Your task to perform on an android device: change text size in settings app Image 0: 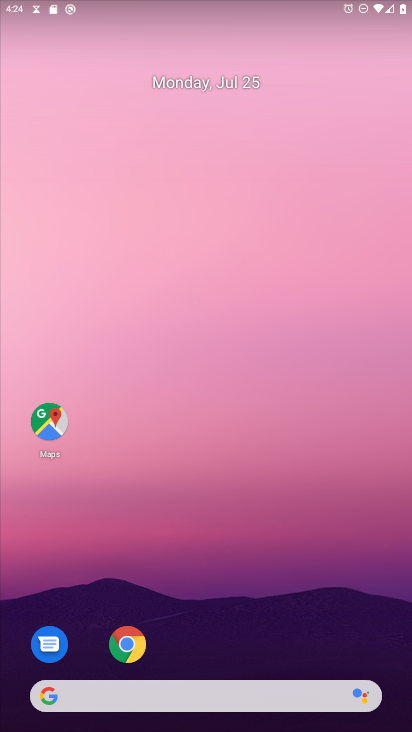
Step 0: press home button
Your task to perform on an android device: change text size in settings app Image 1: 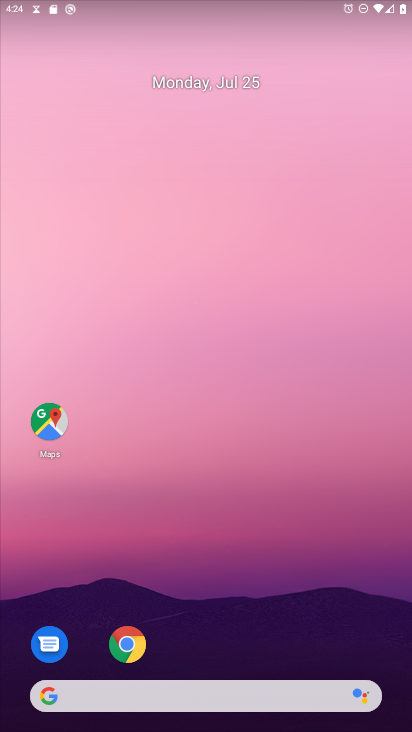
Step 1: drag from (278, 623) to (286, 87)
Your task to perform on an android device: change text size in settings app Image 2: 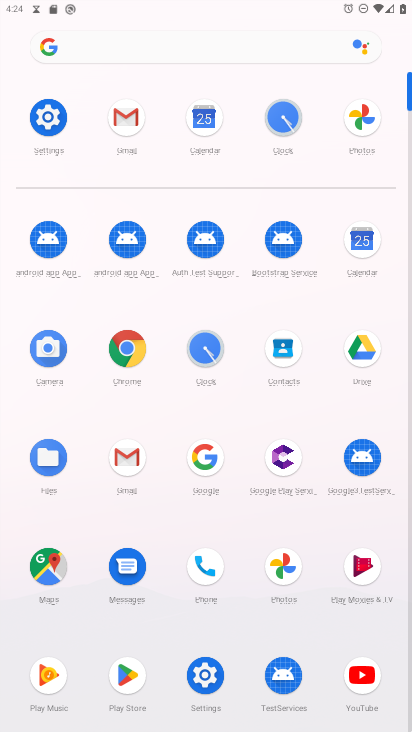
Step 2: click (48, 116)
Your task to perform on an android device: change text size in settings app Image 3: 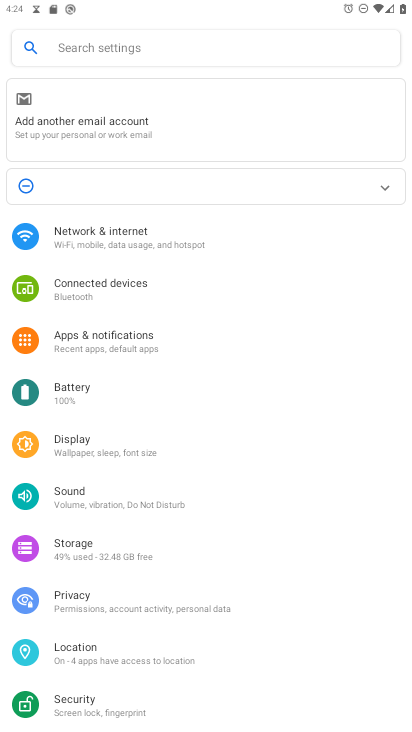
Step 3: click (92, 448)
Your task to perform on an android device: change text size in settings app Image 4: 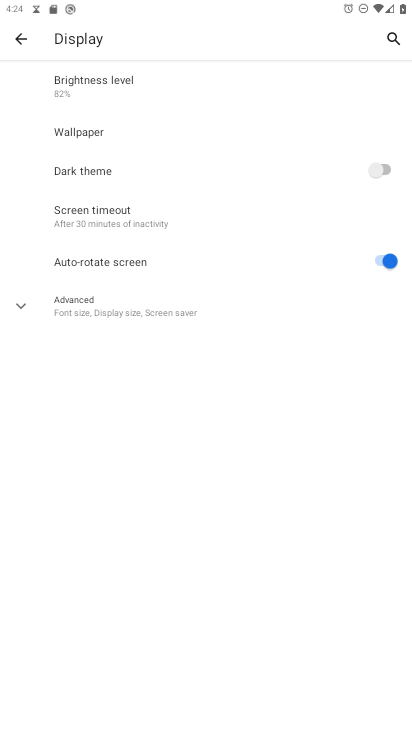
Step 4: click (43, 306)
Your task to perform on an android device: change text size in settings app Image 5: 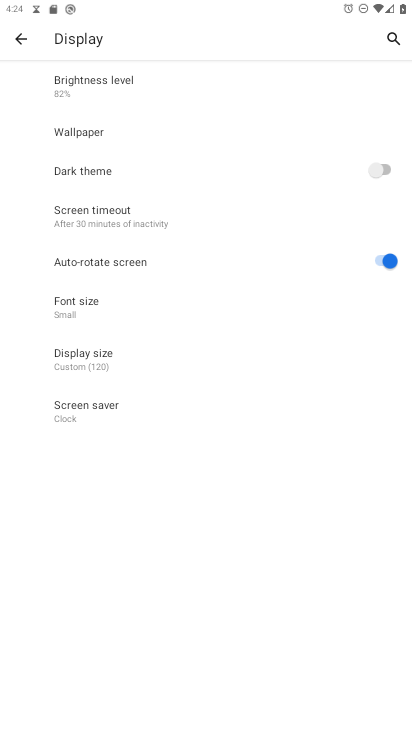
Step 5: click (93, 303)
Your task to perform on an android device: change text size in settings app Image 6: 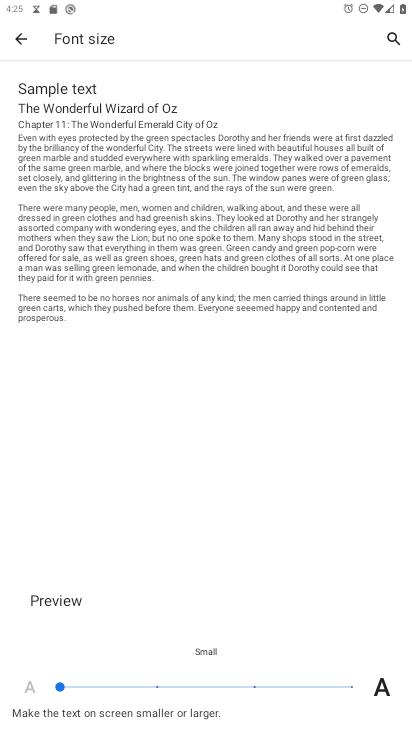
Step 6: click (247, 682)
Your task to perform on an android device: change text size in settings app Image 7: 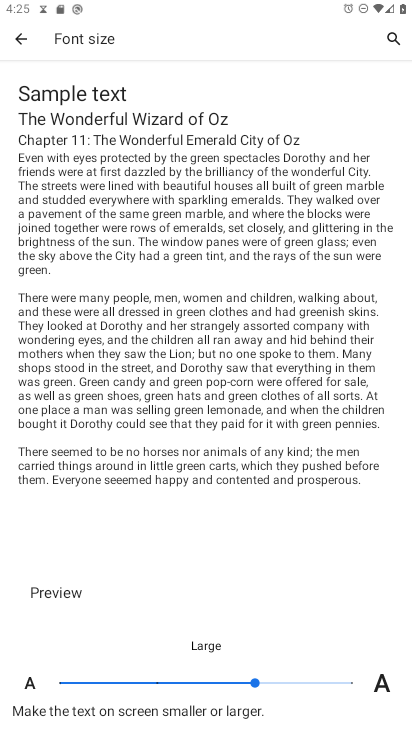
Step 7: task complete